Your task to perform on an android device: Open the Play Movies app and select the watchlist tab. Image 0: 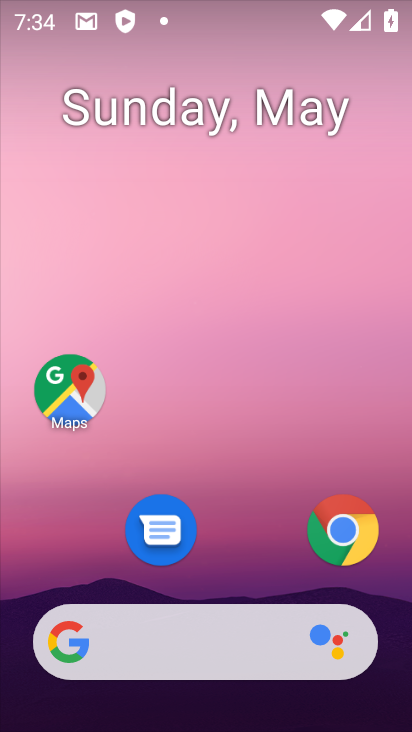
Step 0: drag from (255, 589) to (155, 8)
Your task to perform on an android device: Open the Play Movies app and select the watchlist tab. Image 1: 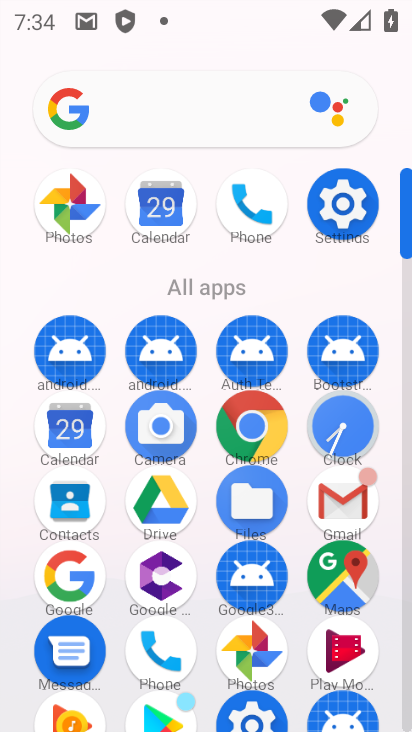
Step 1: click (367, 671)
Your task to perform on an android device: Open the Play Movies app and select the watchlist tab. Image 2: 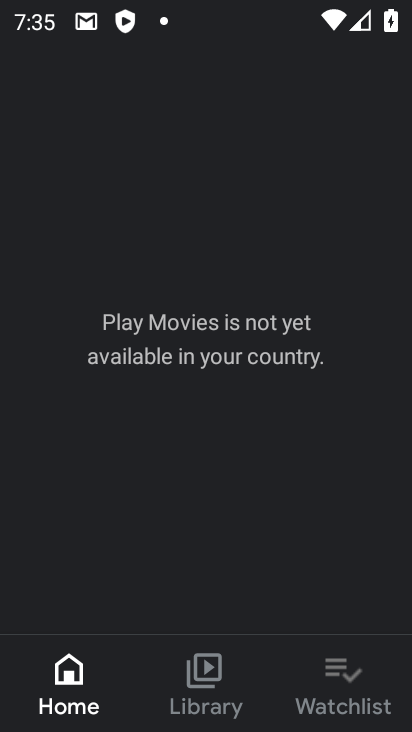
Step 2: click (317, 681)
Your task to perform on an android device: Open the Play Movies app and select the watchlist tab. Image 3: 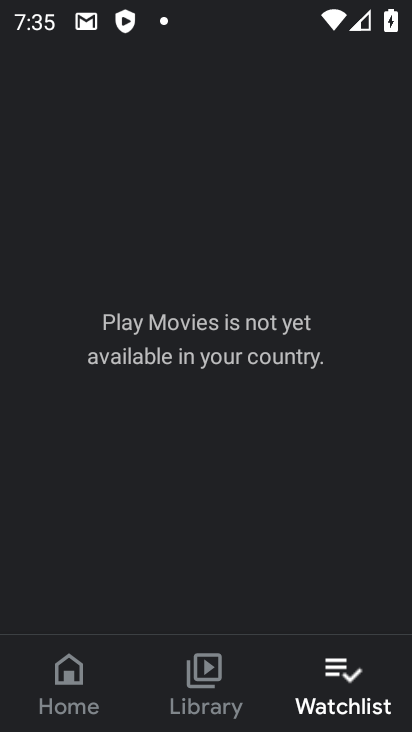
Step 3: task complete